Your task to perform on an android device: Show me the alarms in the clock app Image 0: 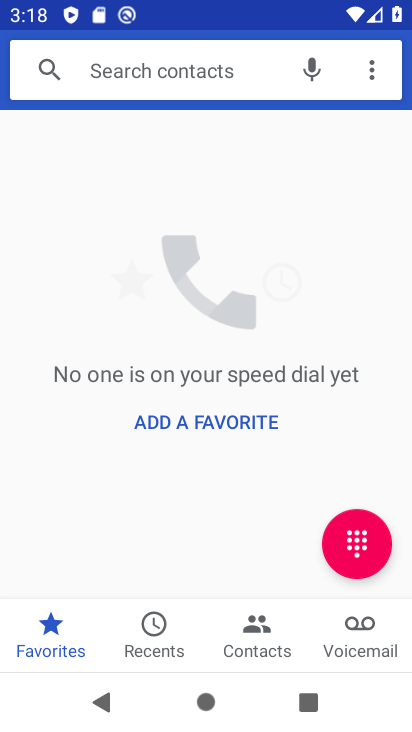
Step 0: press home button
Your task to perform on an android device: Show me the alarms in the clock app Image 1: 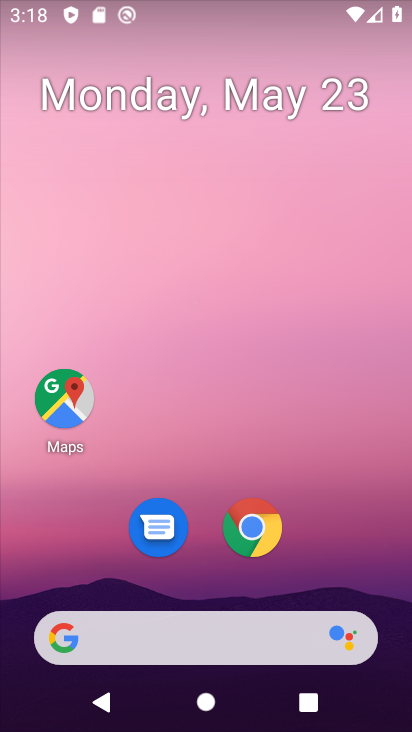
Step 1: drag from (297, 546) to (273, 124)
Your task to perform on an android device: Show me the alarms in the clock app Image 2: 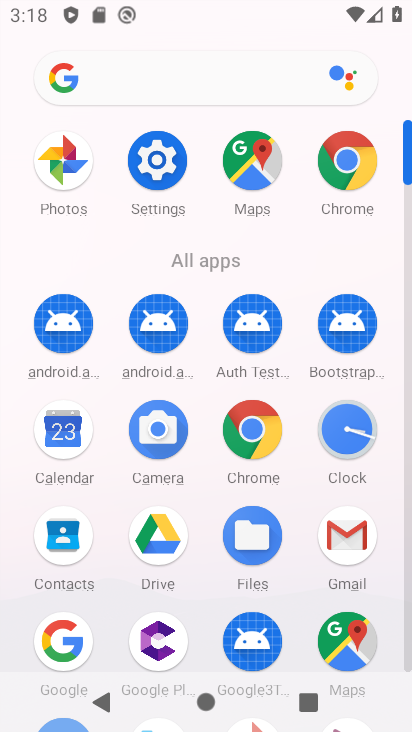
Step 2: click (355, 414)
Your task to perform on an android device: Show me the alarms in the clock app Image 3: 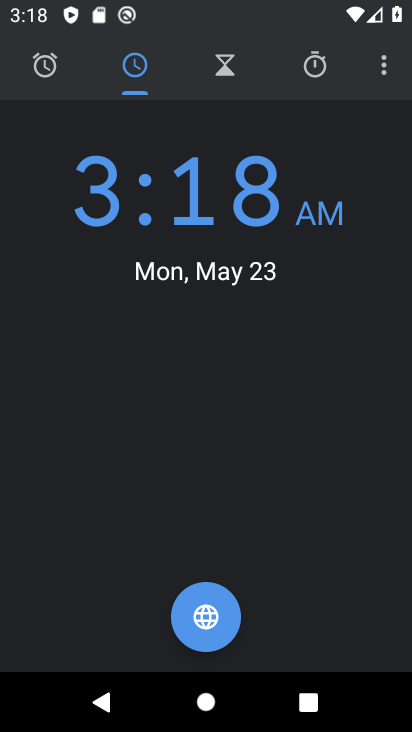
Step 3: click (45, 56)
Your task to perform on an android device: Show me the alarms in the clock app Image 4: 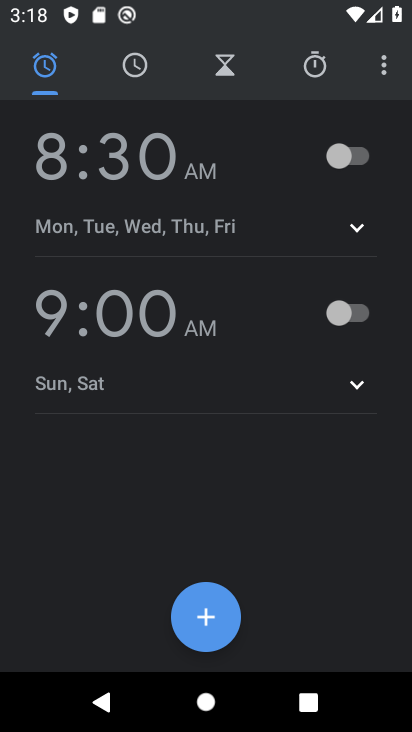
Step 4: task complete